Your task to perform on an android device: turn on showing notifications on the lock screen Image 0: 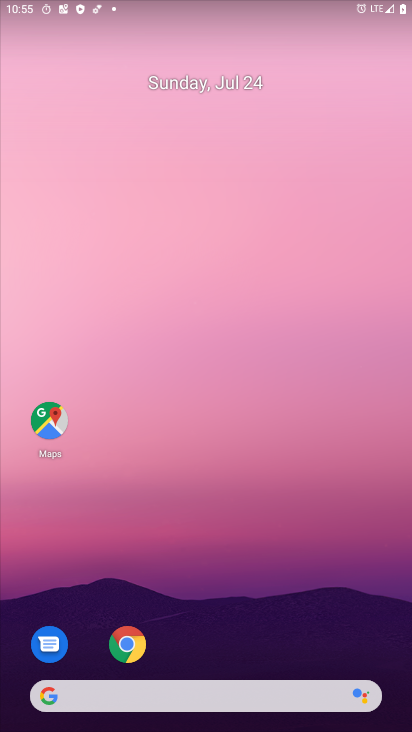
Step 0: drag from (177, 677) to (175, 122)
Your task to perform on an android device: turn on showing notifications on the lock screen Image 1: 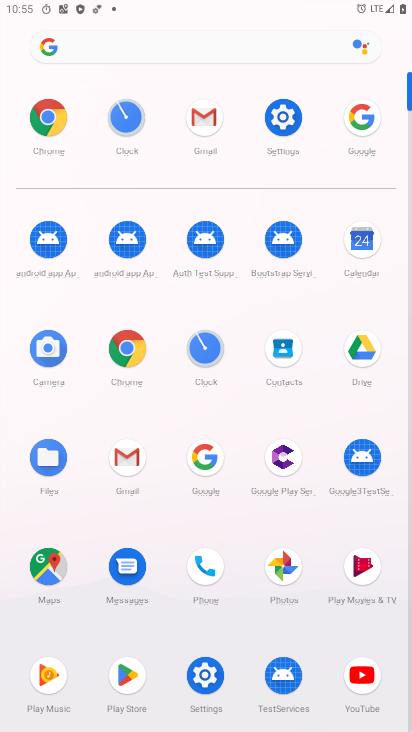
Step 1: click (270, 121)
Your task to perform on an android device: turn on showing notifications on the lock screen Image 2: 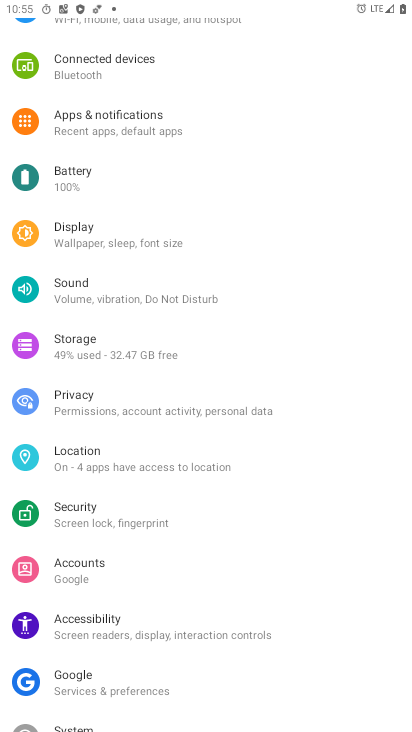
Step 2: click (77, 400)
Your task to perform on an android device: turn on showing notifications on the lock screen Image 3: 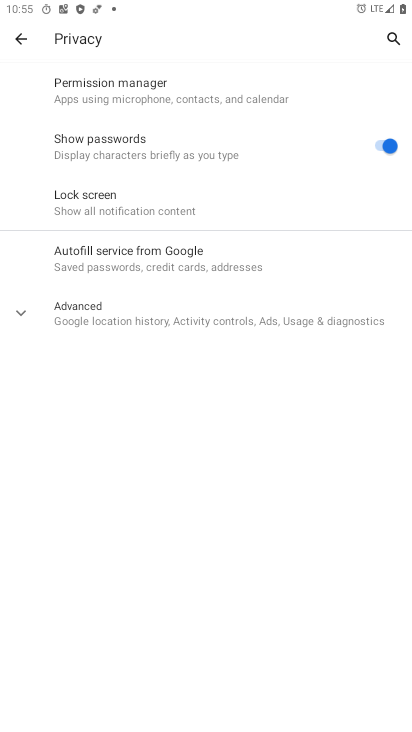
Step 3: click (87, 203)
Your task to perform on an android device: turn on showing notifications on the lock screen Image 4: 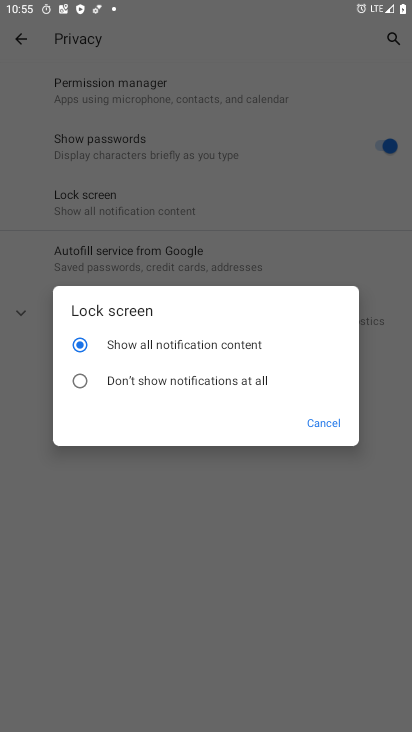
Step 4: click (315, 420)
Your task to perform on an android device: turn on showing notifications on the lock screen Image 5: 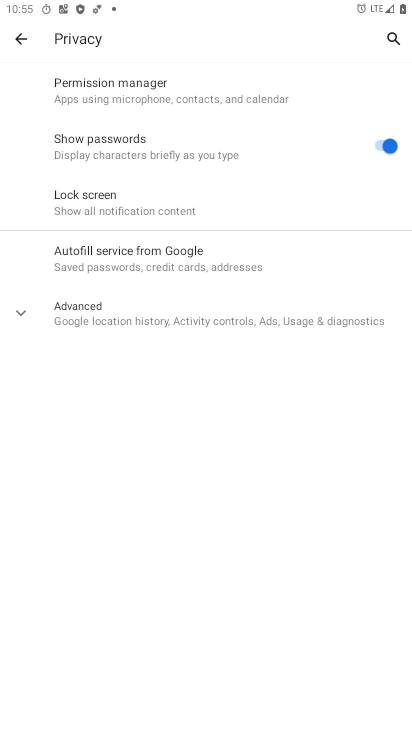
Step 5: task complete